Your task to perform on an android device: delete browsing data in the chrome app Image 0: 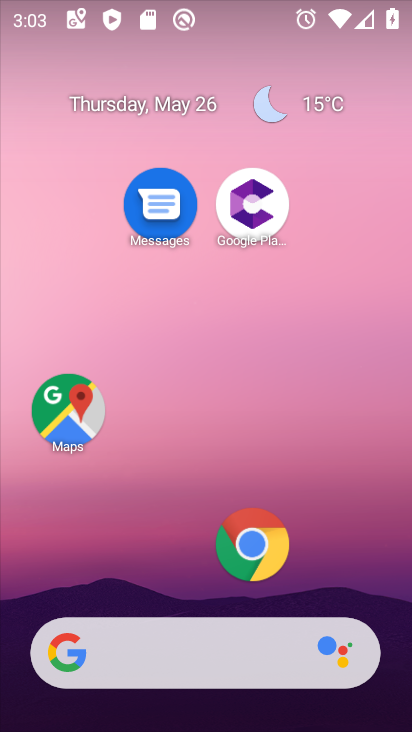
Step 0: click (270, 543)
Your task to perform on an android device: delete browsing data in the chrome app Image 1: 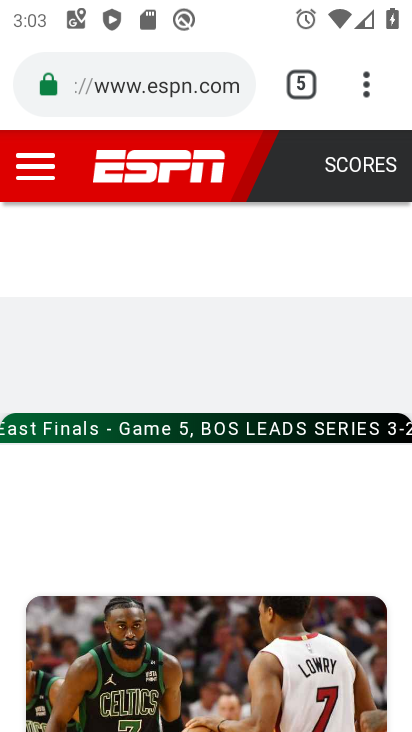
Step 1: click (371, 93)
Your task to perform on an android device: delete browsing data in the chrome app Image 2: 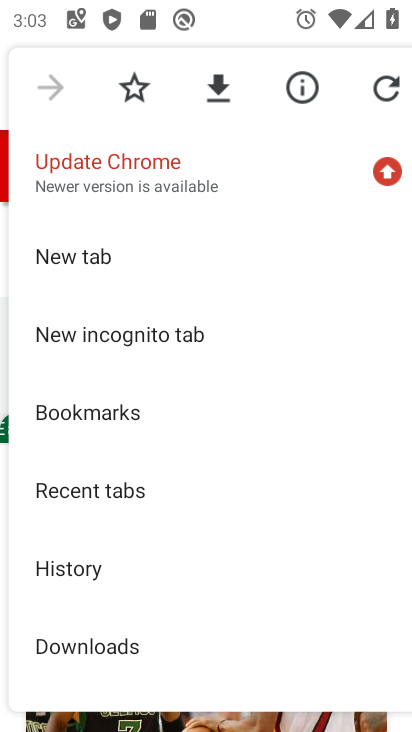
Step 2: click (123, 576)
Your task to perform on an android device: delete browsing data in the chrome app Image 3: 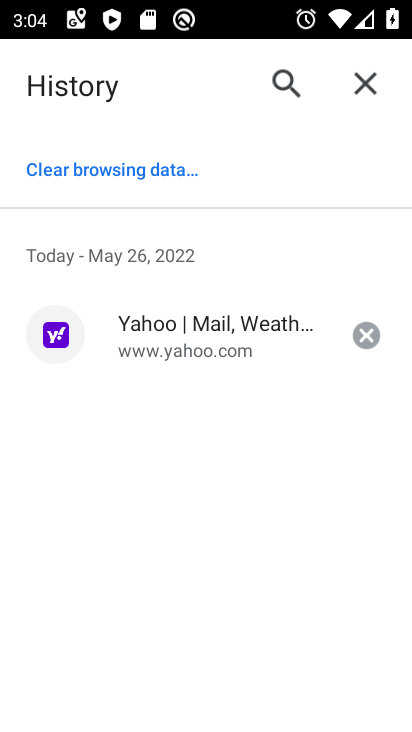
Step 3: click (105, 180)
Your task to perform on an android device: delete browsing data in the chrome app Image 4: 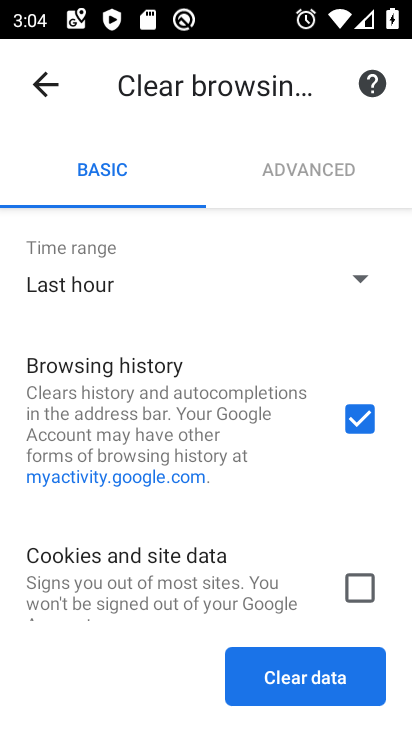
Step 4: click (277, 659)
Your task to perform on an android device: delete browsing data in the chrome app Image 5: 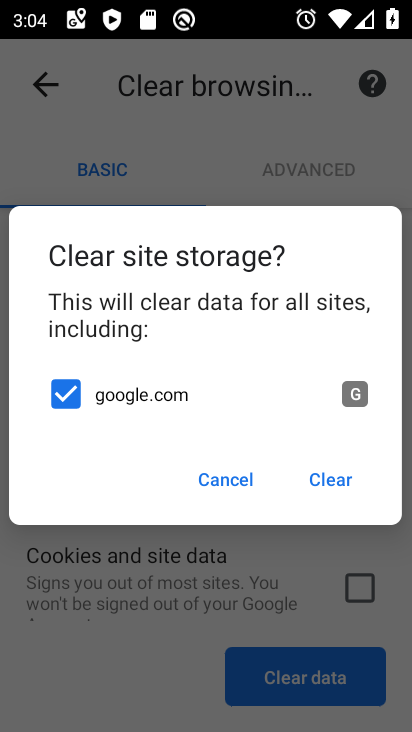
Step 5: click (320, 488)
Your task to perform on an android device: delete browsing data in the chrome app Image 6: 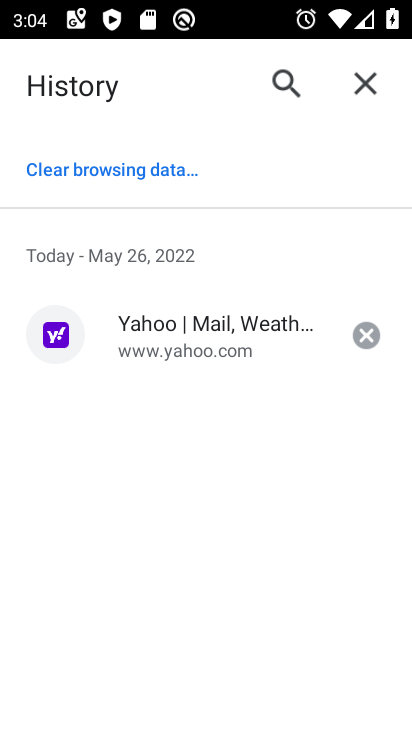
Step 6: task complete